Your task to perform on an android device: turn pop-ups off in chrome Image 0: 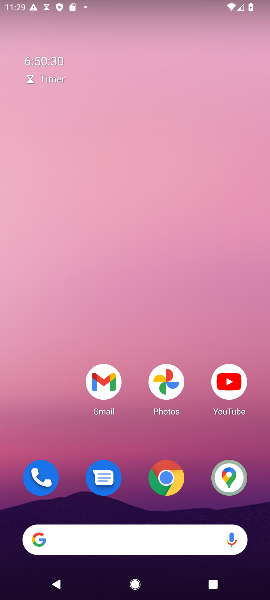
Step 0: drag from (197, 466) to (164, 126)
Your task to perform on an android device: turn pop-ups off in chrome Image 1: 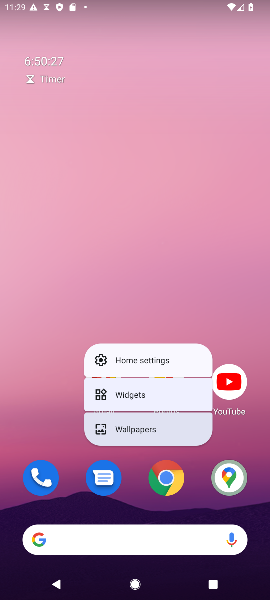
Step 1: drag from (185, 313) to (207, 45)
Your task to perform on an android device: turn pop-ups off in chrome Image 2: 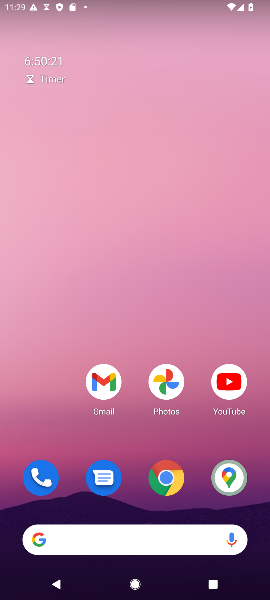
Step 2: click (172, 478)
Your task to perform on an android device: turn pop-ups off in chrome Image 3: 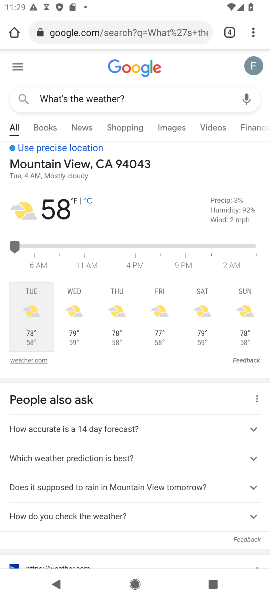
Step 3: click (249, 31)
Your task to perform on an android device: turn pop-ups off in chrome Image 4: 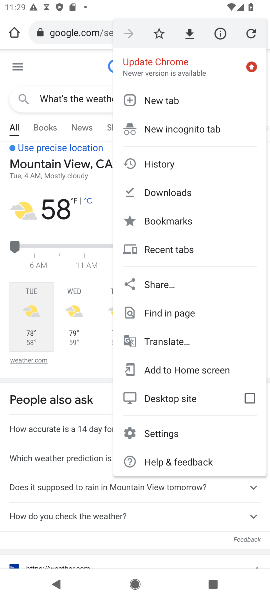
Step 4: click (196, 435)
Your task to perform on an android device: turn pop-ups off in chrome Image 5: 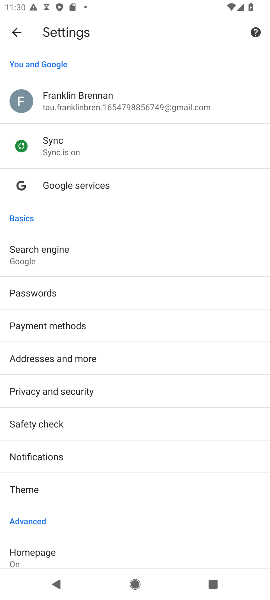
Step 5: drag from (98, 558) to (76, 258)
Your task to perform on an android device: turn pop-ups off in chrome Image 6: 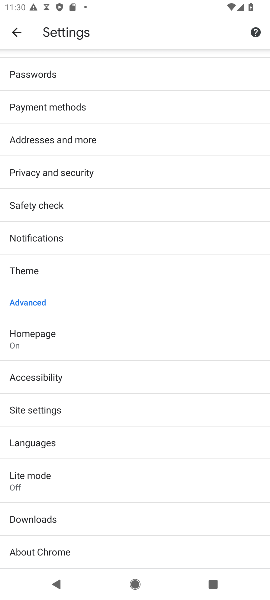
Step 6: click (109, 490)
Your task to perform on an android device: turn pop-ups off in chrome Image 7: 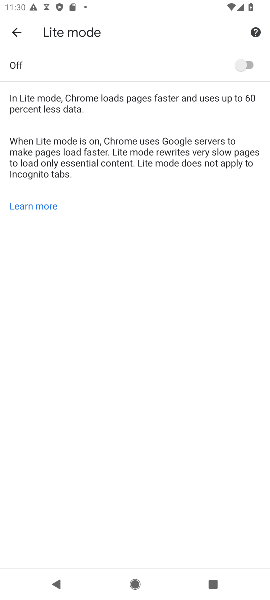
Step 7: task complete